Your task to perform on an android device: check battery use Image 0: 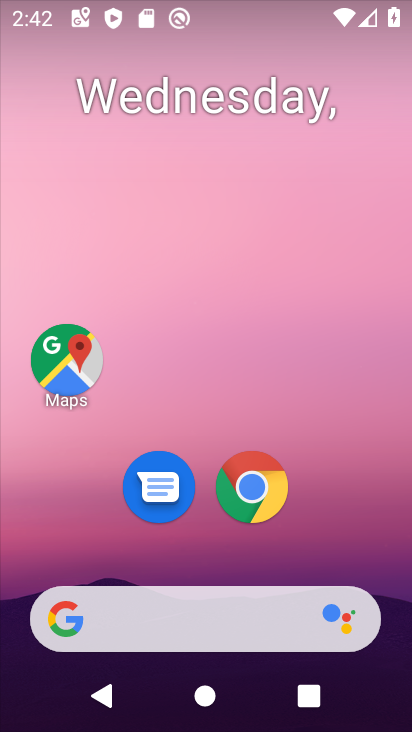
Step 0: drag from (370, 545) to (363, 246)
Your task to perform on an android device: check battery use Image 1: 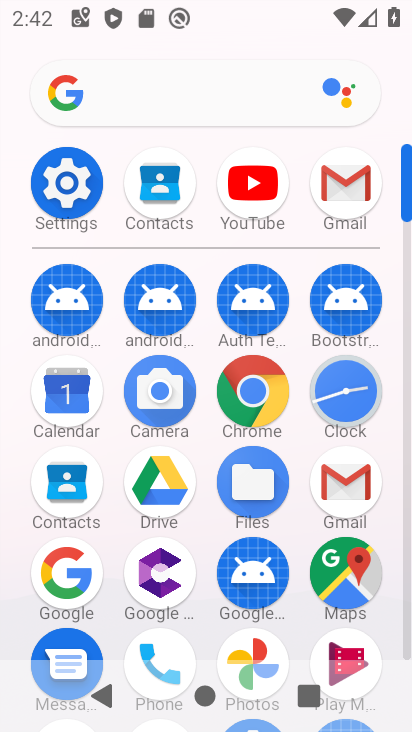
Step 1: click (78, 198)
Your task to perform on an android device: check battery use Image 2: 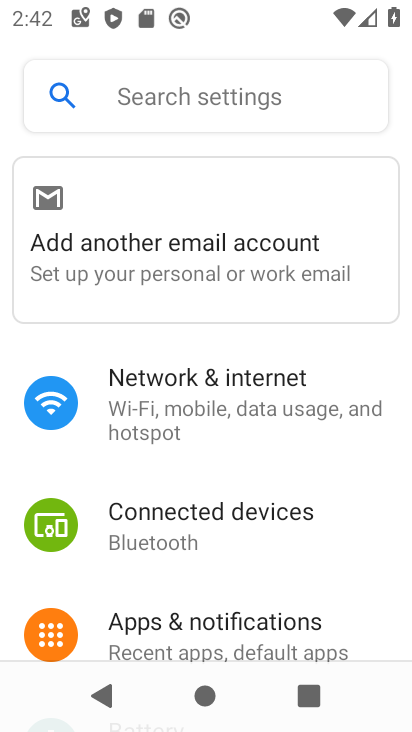
Step 2: drag from (347, 501) to (376, 289)
Your task to perform on an android device: check battery use Image 3: 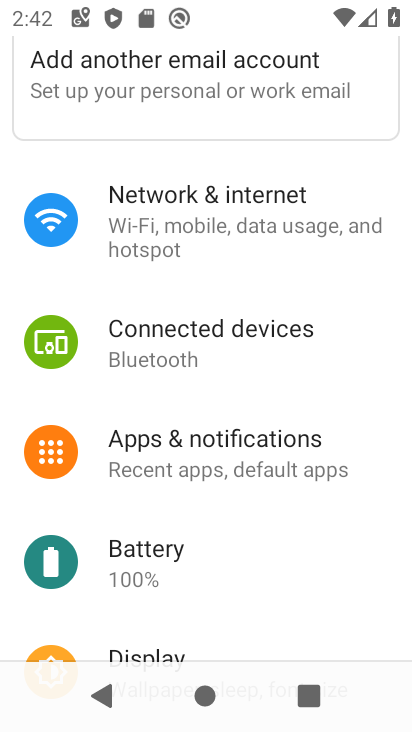
Step 3: drag from (355, 526) to (367, 325)
Your task to perform on an android device: check battery use Image 4: 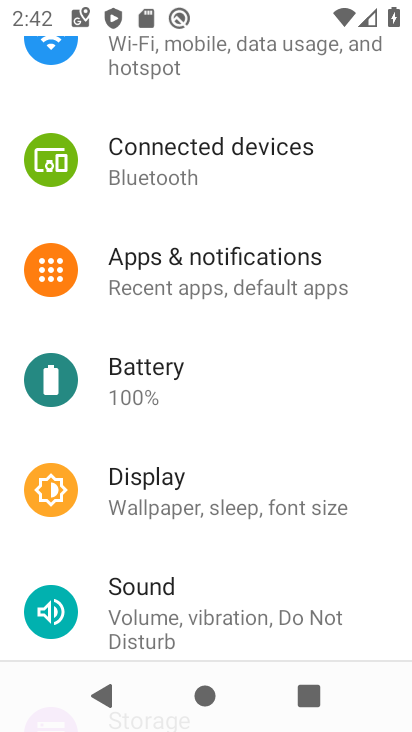
Step 4: click (246, 392)
Your task to perform on an android device: check battery use Image 5: 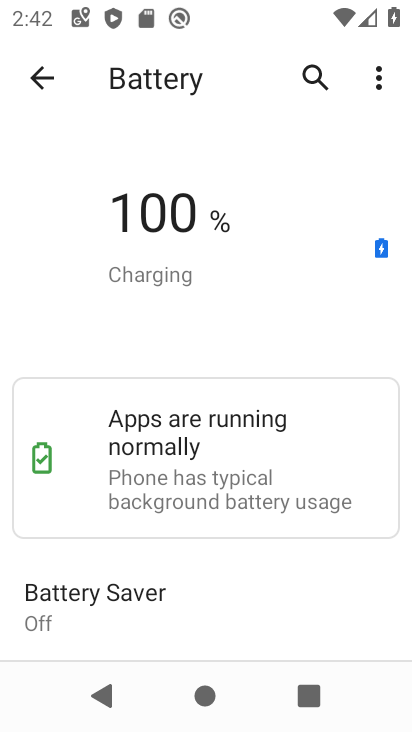
Step 5: click (379, 82)
Your task to perform on an android device: check battery use Image 6: 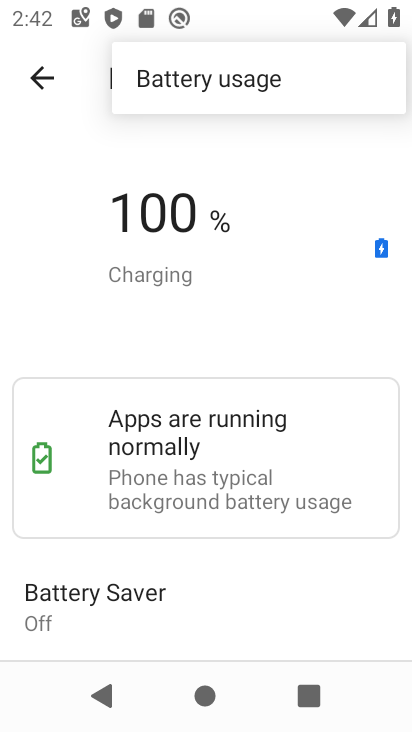
Step 6: click (316, 78)
Your task to perform on an android device: check battery use Image 7: 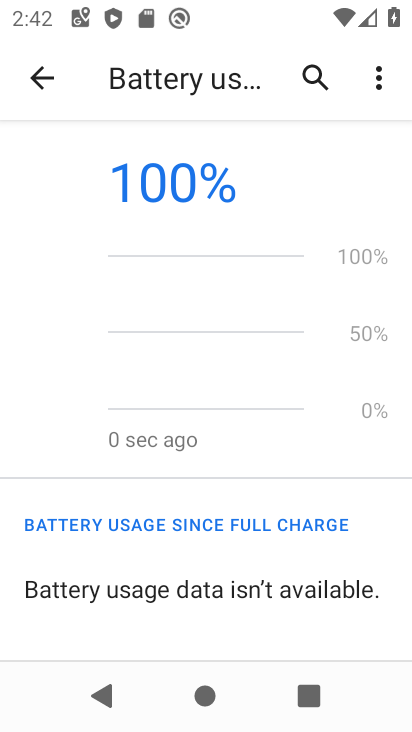
Step 7: task complete